Your task to perform on an android device: turn on airplane mode Image 0: 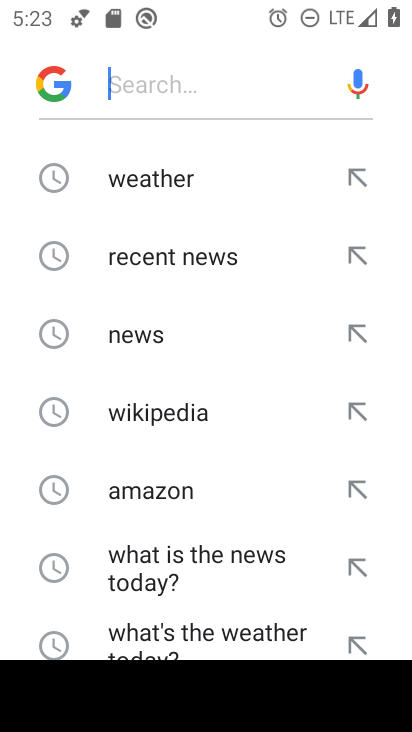
Step 0: press home button
Your task to perform on an android device: turn on airplane mode Image 1: 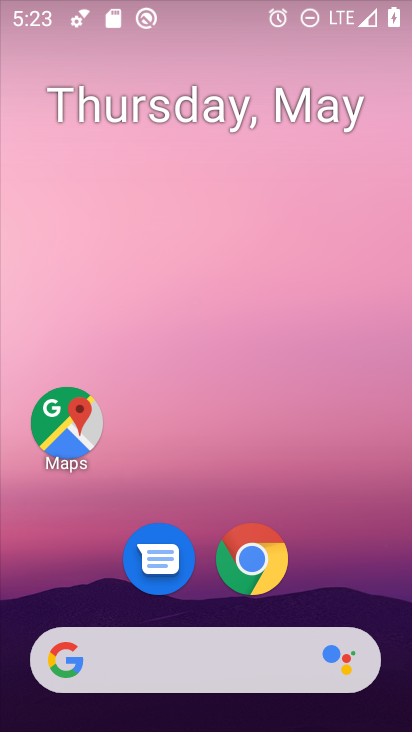
Step 1: drag from (336, 519) to (222, 39)
Your task to perform on an android device: turn on airplane mode Image 2: 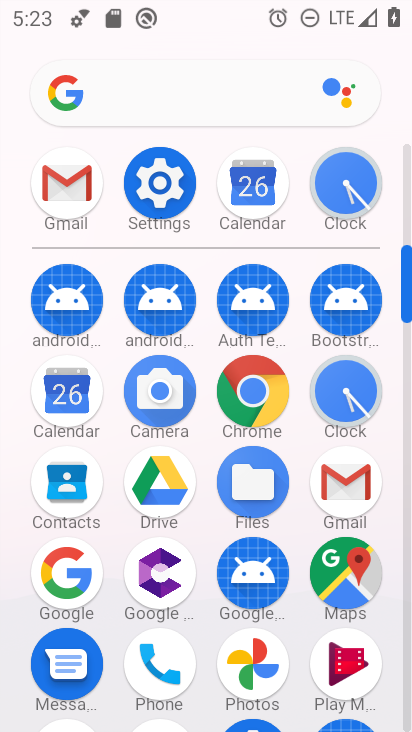
Step 2: click (165, 185)
Your task to perform on an android device: turn on airplane mode Image 3: 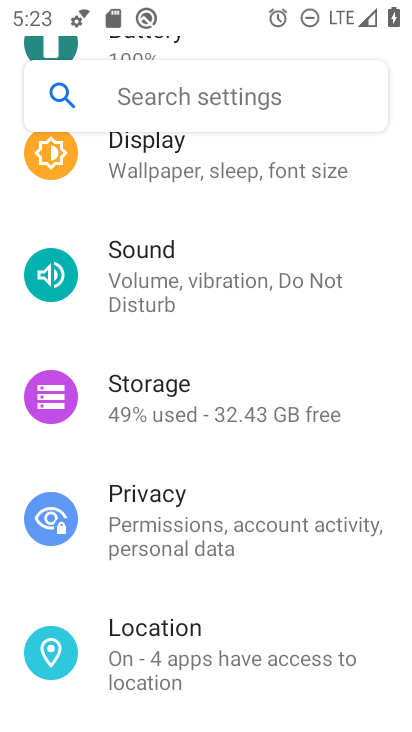
Step 3: drag from (248, 254) to (225, 636)
Your task to perform on an android device: turn on airplane mode Image 4: 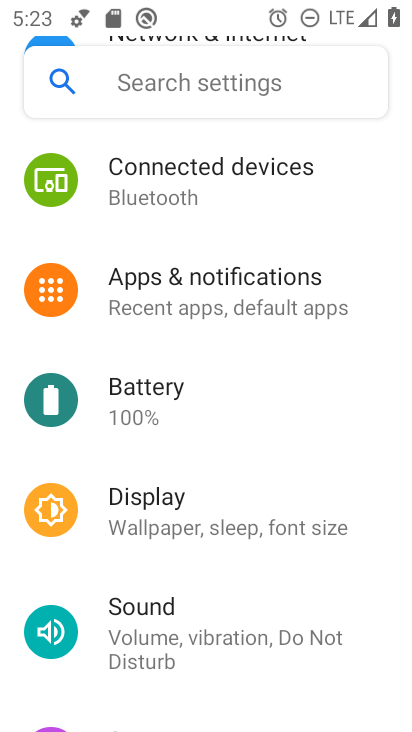
Step 4: drag from (223, 184) to (226, 658)
Your task to perform on an android device: turn on airplane mode Image 5: 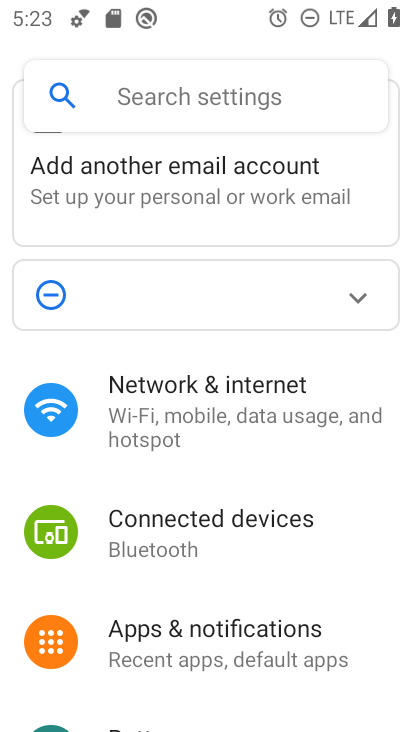
Step 5: click (224, 396)
Your task to perform on an android device: turn on airplane mode Image 6: 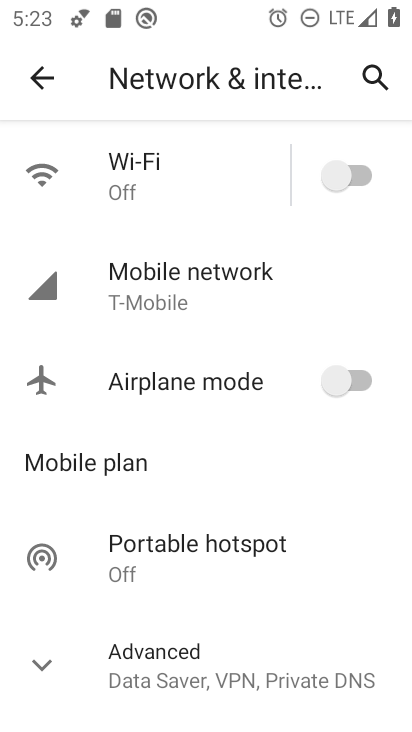
Step 6: click (351, 377)
Your task to perform on an android device: turn on airplane mode Image 7: 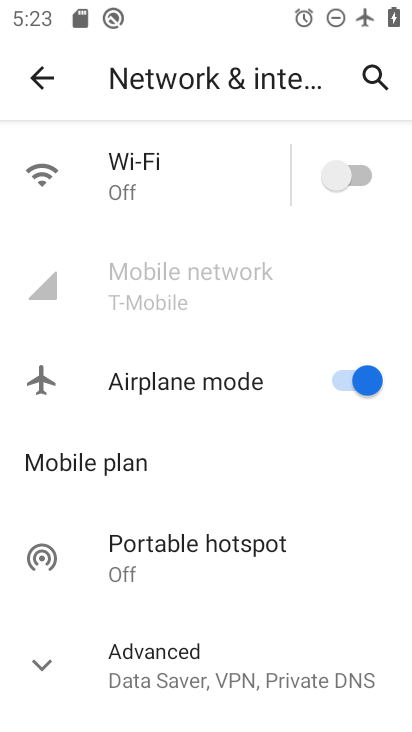
Step 7: task complete